Your task to perform on an android device: turn on priority inbox in the gmail app Image 0: 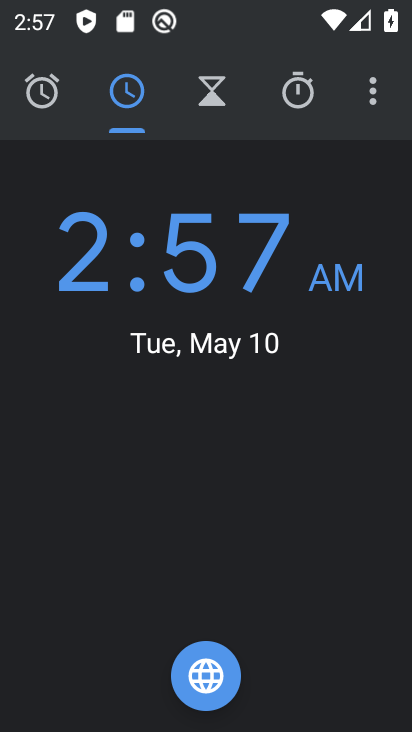
Step 0: press home button
Your task to perform on an android device: turn on priority inbox in the gmail app Image 1: 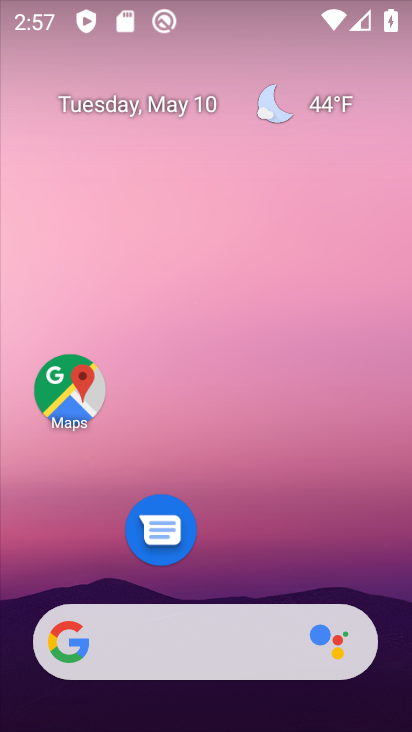
Step 1: drag from (266, 559) to (240, 99)
Your task to perform on an android device: turn on priority inbox in the gmail app Image 2: 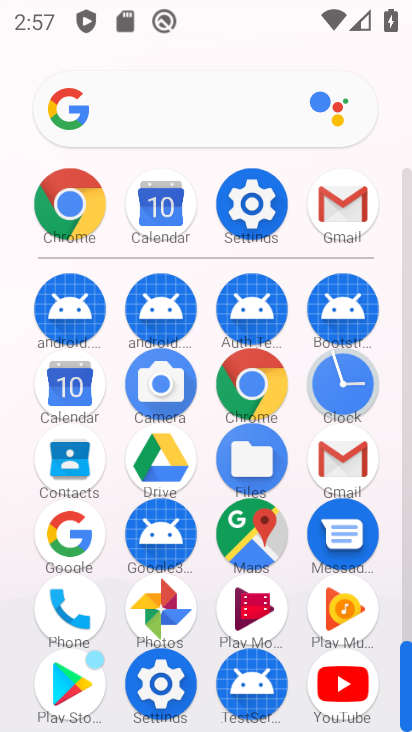
Step 2: click (339, 202)
Your task to perform on an android device: turn on priority inbox in the gmail app Image 3: 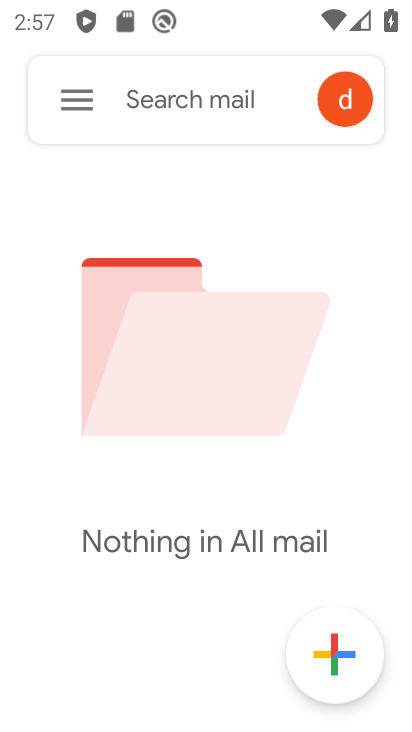
Step 3: click (88, 107)
Your task to perform on an android device: turn on priority inbox in the gmail app Image 4: 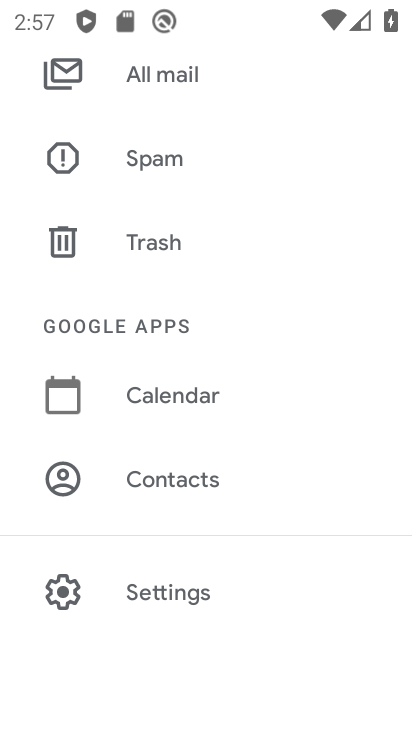
Step 4: click (179, 587)
Your task to perform on an android device: turn on priority inbox in the gmail app Image 5: 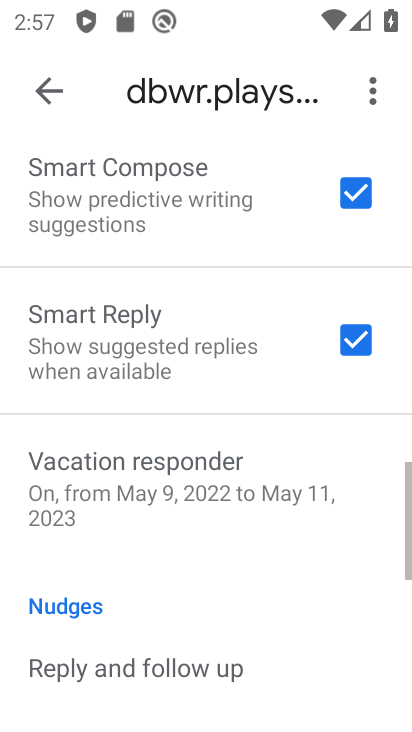
Step 5: drag from (179, 585) to (226, 54)
Your task to perform on an android device: turn on priority inbox in the gmail app Image 6: 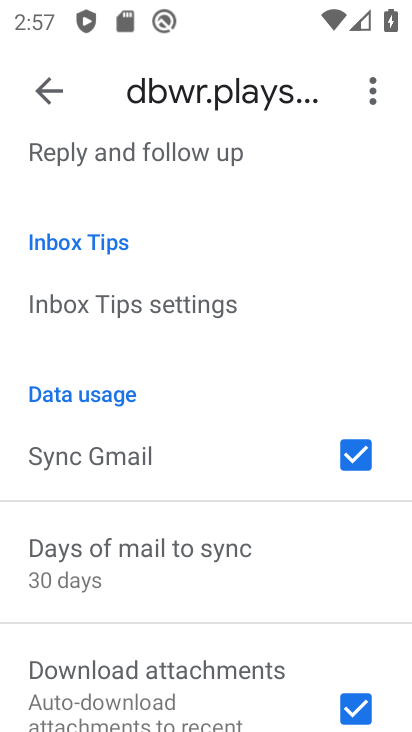
Step 6: drag from (287, 604) to (247, 74)
Your task to perform on an android device: turn on priority inbox in the gmail app Image 7: 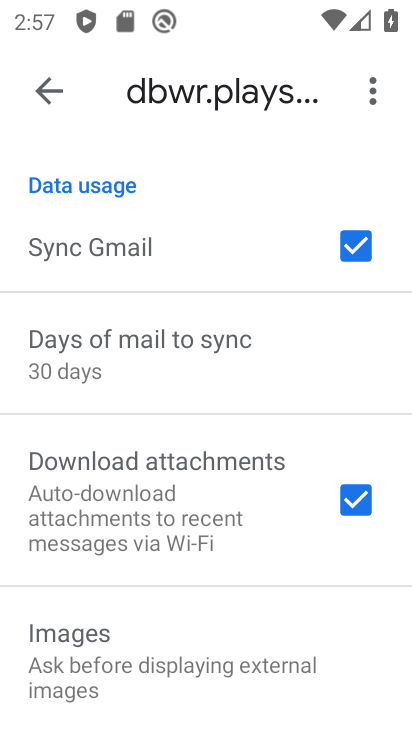
Step 7: drag from (169, 328) to (225, 79)
Your task to perform on an android device: turn on priority inbox in the gmail app Image 8: 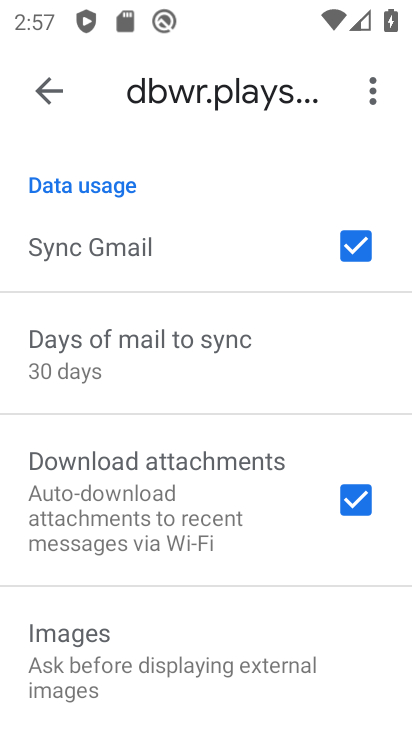
Step 8: drag from (121, 224) to (255, 672)
Your task to perform on an android device: turn on priority inbox in the gmail app Image 9: 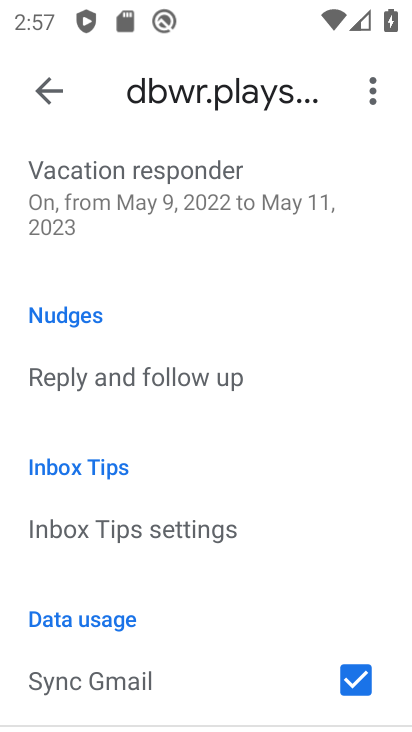
Step 9: drag from (133, 248) to (231, 504)
Your task to perform on an android device: turn on priority inbox in the gmail app Image 10: 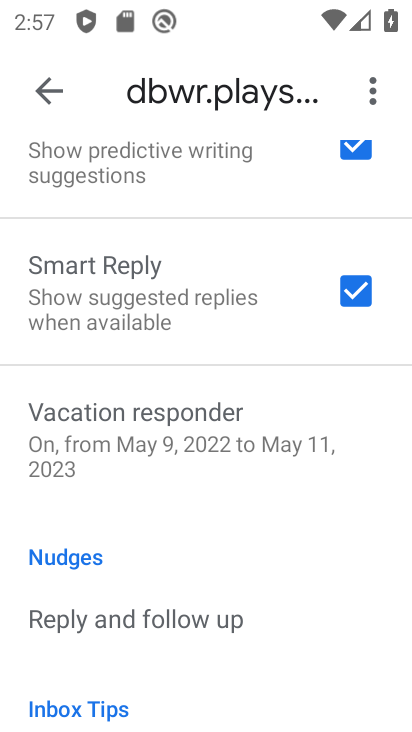
Step 10: drag from (97, 230) to (235, 712)
Your task to perform on an android device: turn on priority inbox in the gmail app Image 11: 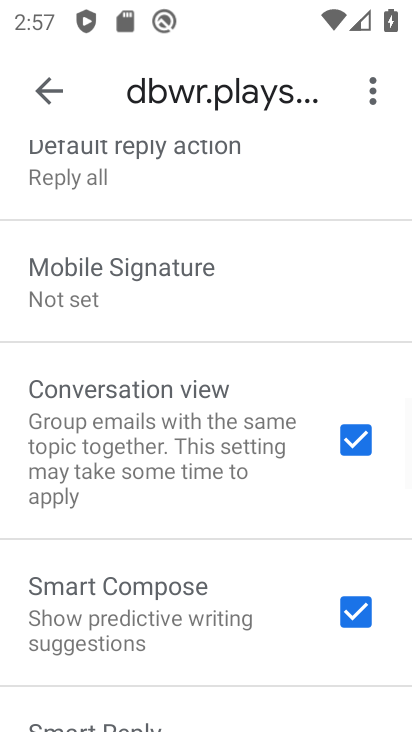
Step 11: drag from (96, 241) to (225, 680)
Your task to perform on an android device: turn on priority inbox in the gmail app Image 12: 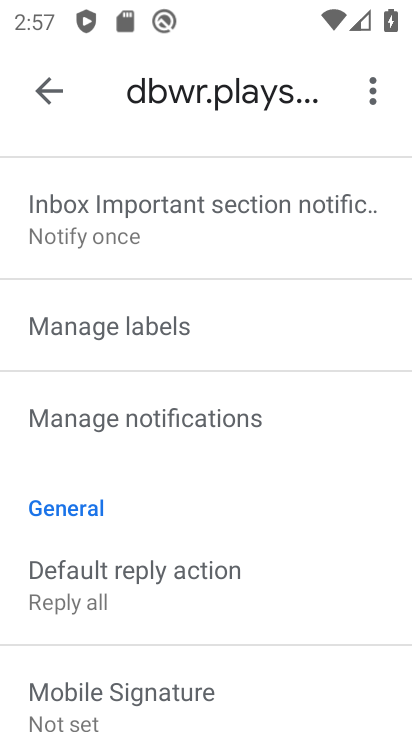
Step 12: drag from (107, 270) to (291, 624)
Your task to perform on an android device: turn on priority inbox in the gmail app Image 13: 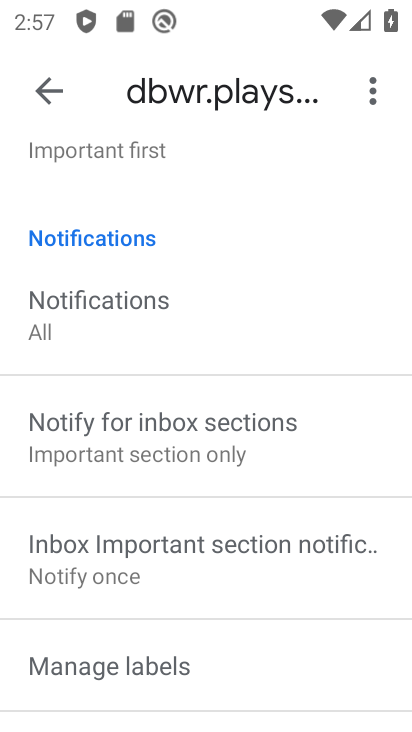
Step 13: drag from (99, 158) to (128, 404)
Your task to perform on an android device: turn on priority inbox in the gmail app Image 14: 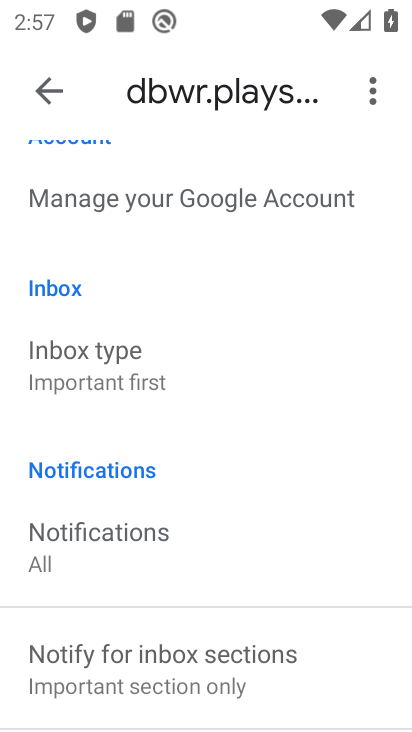
Step 14: click (47, 335)
Your task to perform on an android device: turn on priority inbox in the gmail app Image 15: 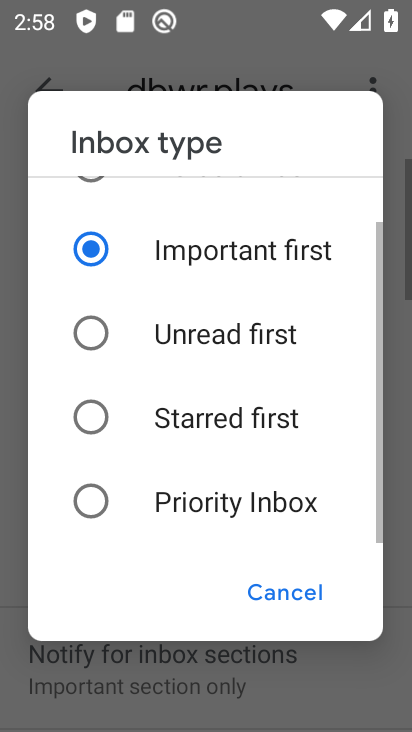
Step 15: click (89, 505)
Your task to perform on an android device: turn on priority inbox in the gmail app Image 16: 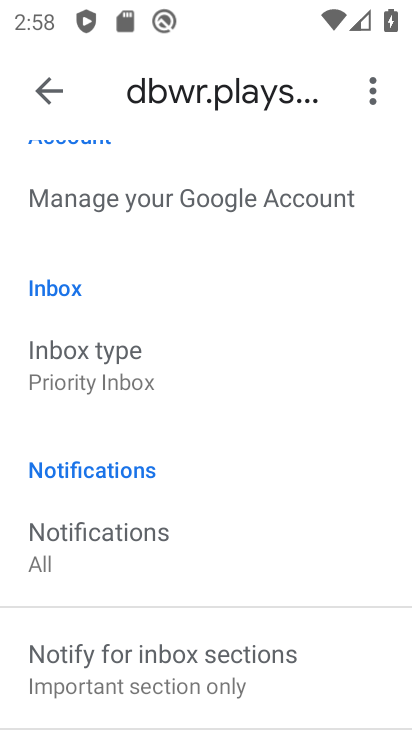
Step 16: task complete